Your task to perform on an android device: Go to eBay Image 0: 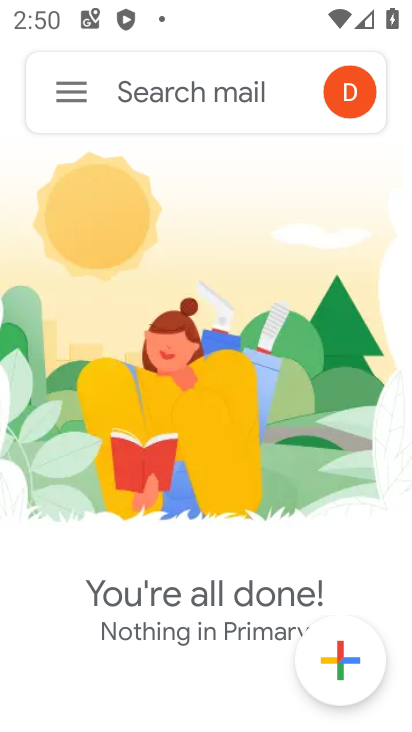
Step 0: press home button
Your task to perform on an android device: Go to eBay Image 1: 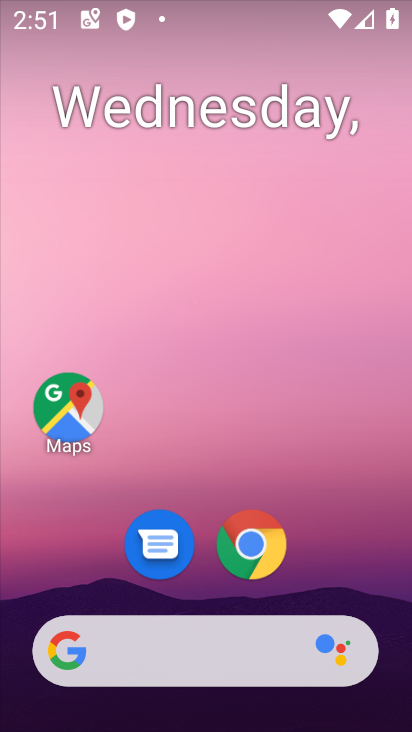
Step 1: drag from (335, 401) to (328, 94)
Your task to perform on an android device: Go to eBay Image 2: 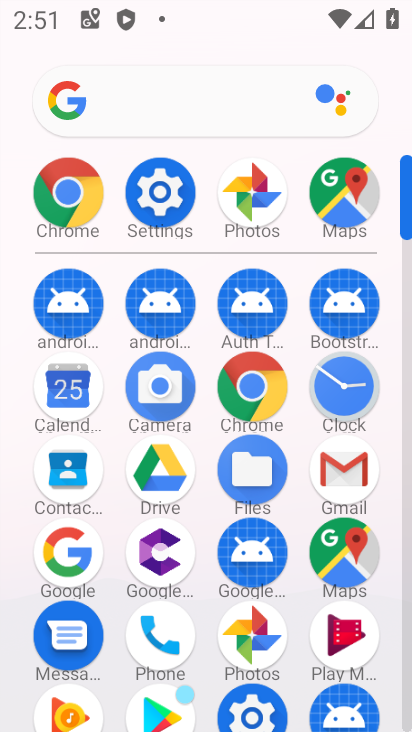
Step 2: click (59, 206)
Your task to perform on an android device: Go to eBay Image 3: 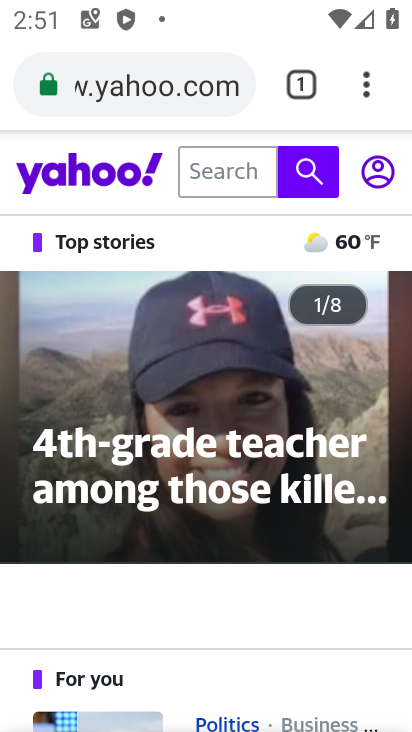
Step 3: click (210, 91)
Your task to perform on an android device: Go to eBay Image 4: 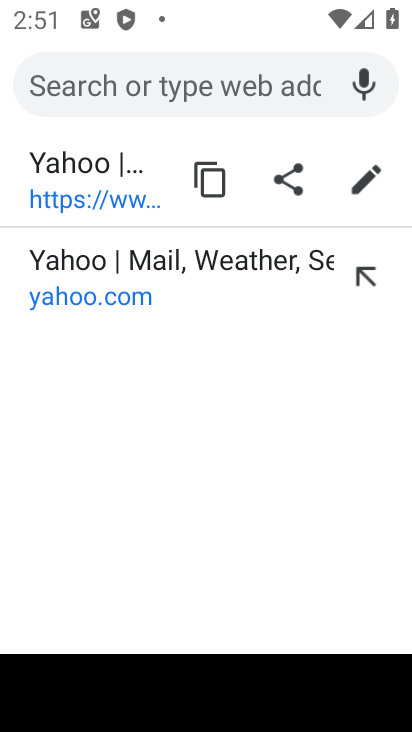
Step 4: type "ebay"
Your task to perform on an android device: Go to eBay Image 5: 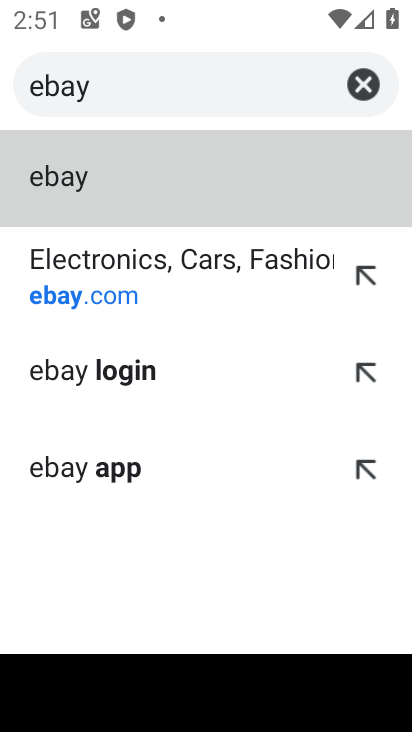
Step 5: click (141, 155)
Your task to perform on an android device: Go to eBay Image 6: 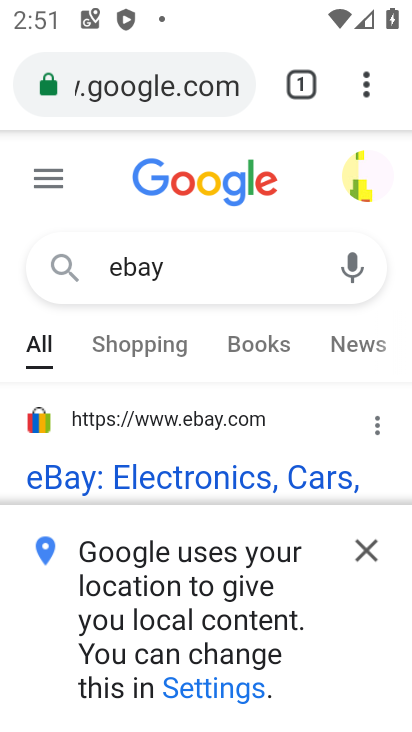
Step 6: click (365, 559)
Your task to perform on an android device: Go to eBay Image 7: 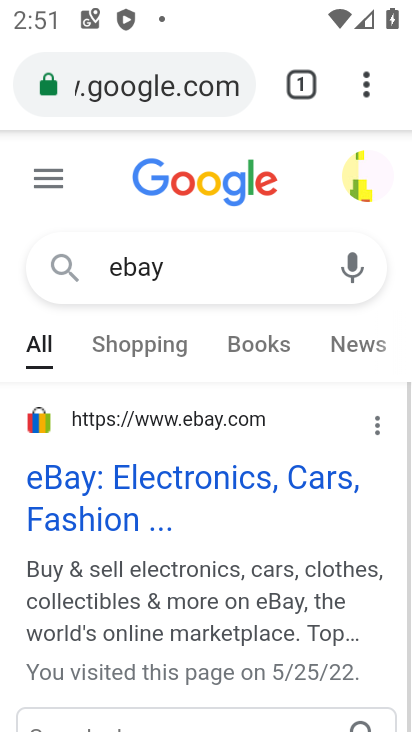
Step 7: click (66, 474)
Your task to perform on an android device: Go to eBay Image 8: 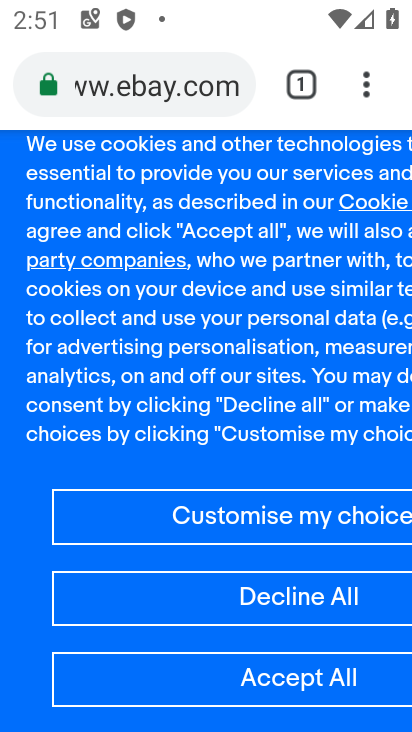
Step 8: task complete